Your task to perform on an android device: see sites visited before in the chrome app Image 0: 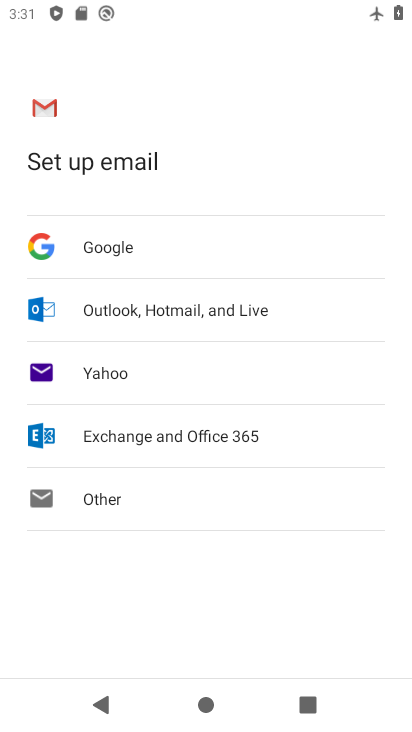
Step 0: press home button
Your task to perform on an android device: see sites visited before in the chrome app Image 1: 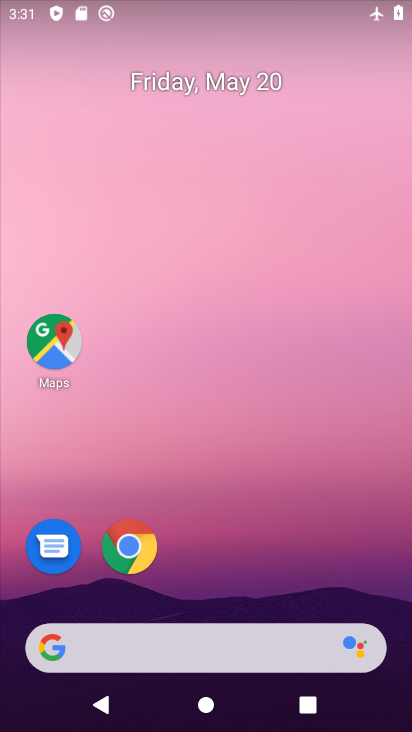
Step 1: drag from (224, 524) to (270, 89)
Your task to perform on an android device: see sites visited before in the chrome app Image 2: 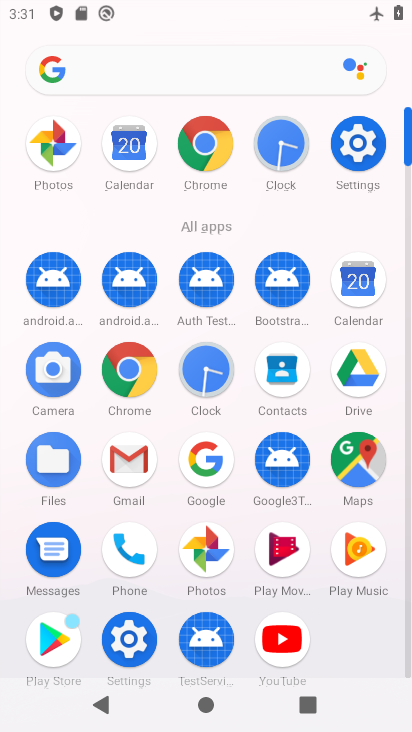
Step 2: click (205, 149)
Your task to perform on an android device: see sites visited before in the chrome app Image 3: 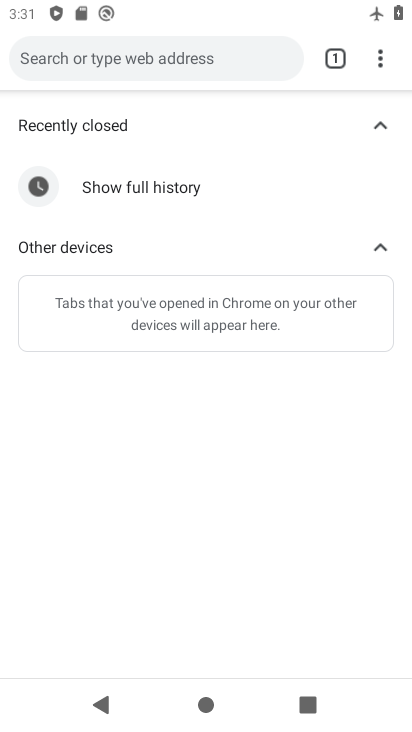
Step 3: task complete